Your task to perform on an android device: turn on notifications settings in the gmail app Image 0: 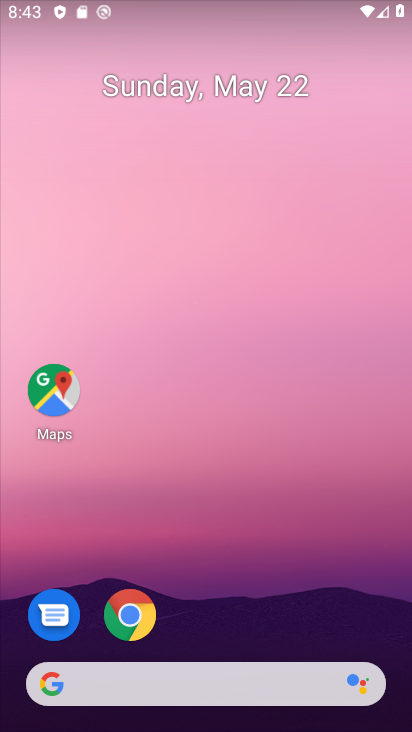
Step 0: drag from (239, 625) to (269, 77)
Your task to perform on an android device: turn on notifications settings in the gmail app Image 1: 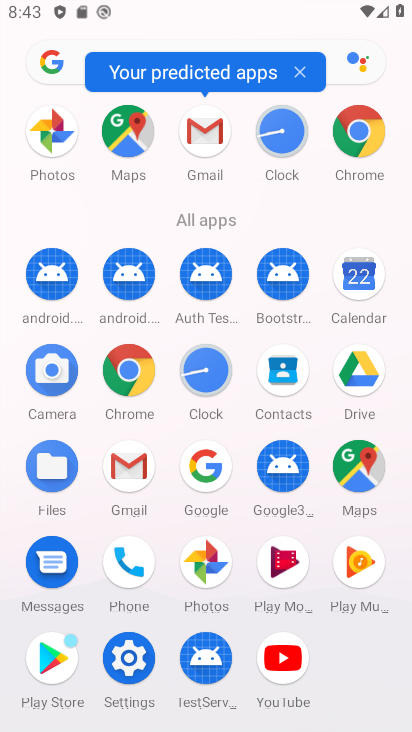
Step 1: click (131, 475)
Your task to perform on an android device: turn on notifications settings in the gmail app Image 2: 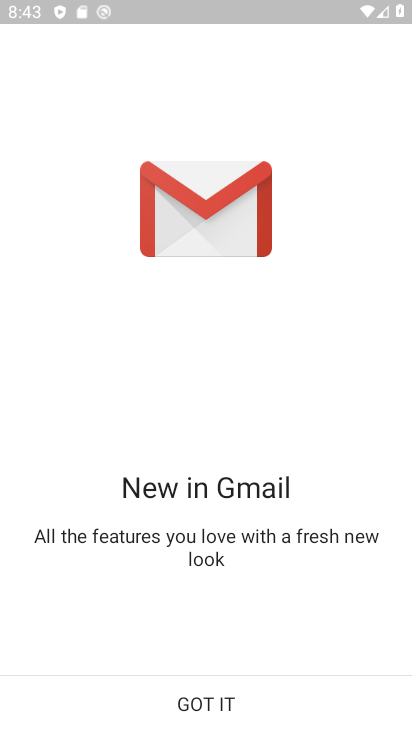
Step 2: click (170, 706)
Your task to perform on an android device: turn on notifications settings in the gmail app Image 3: 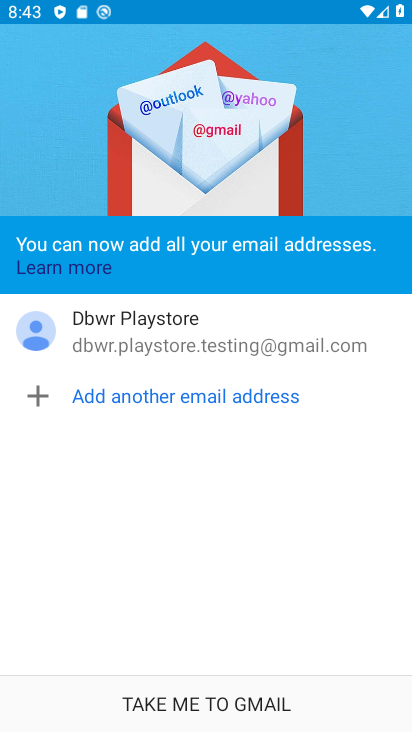
Step 3: click (208, 706)
Your task to perform on an android device: turn on notifications settings in the gmail app Image 4: 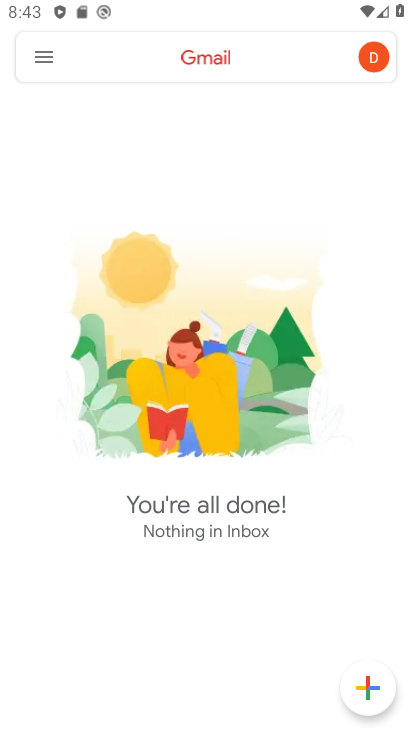
Step 4: click (42, 65)
Your task to perform on an android device: turn on notifications settings in the gmail app Image 5: 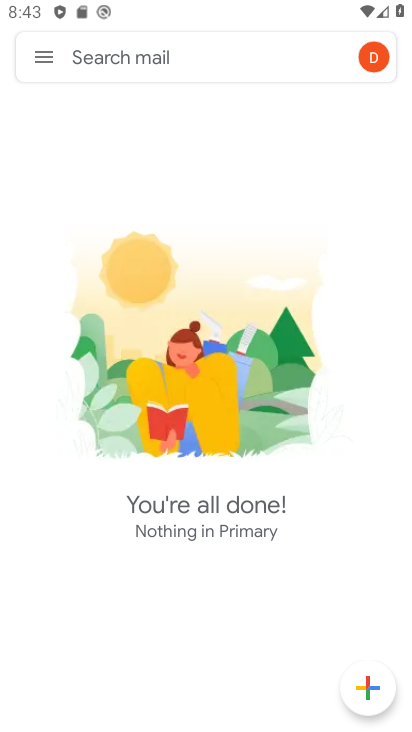
Step 5: click (41, 52)
Your task to perform on an android device: turn on notifications settings in the gmail app Image 6: 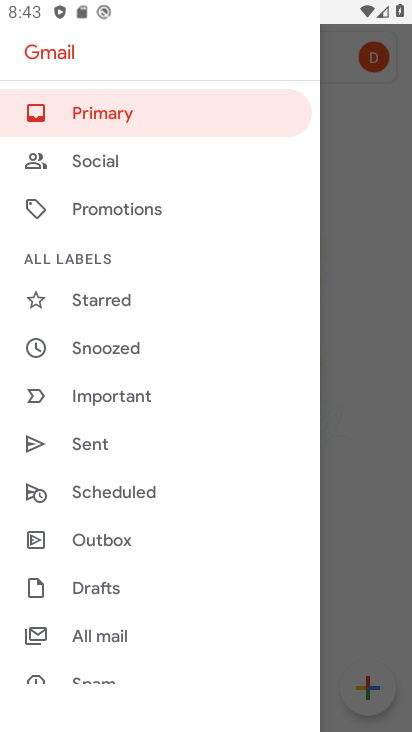
Step 6: drag from (121, 504) to (152, 251)
Your task to perform on an android device: turn on notifications settings in the gmail app Image 7: 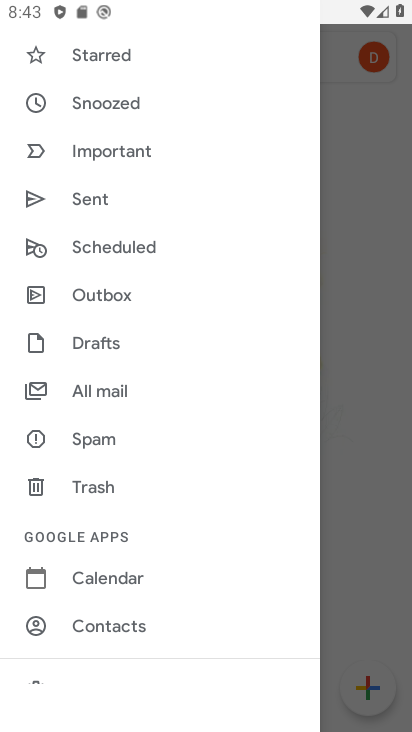
Step 7: drag from (140, 384) to (148, 310)
Your task to perform on an android device: turn on notifications settings in the gmail app Image 8: 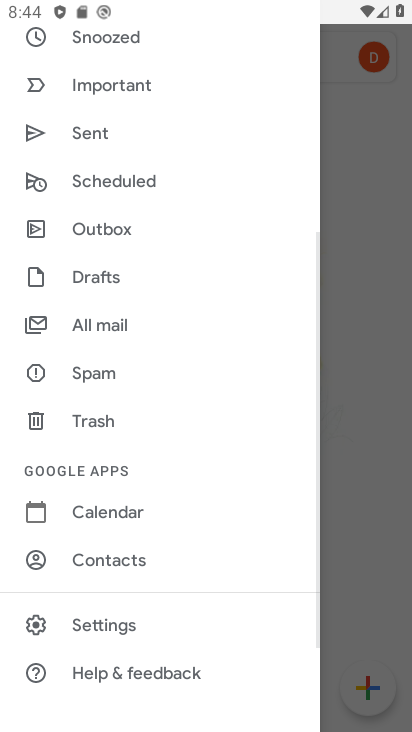
Step 8: click (102, 649)
Your task to perform on an android device: turn on notifications settings in the gmail app Image 9: 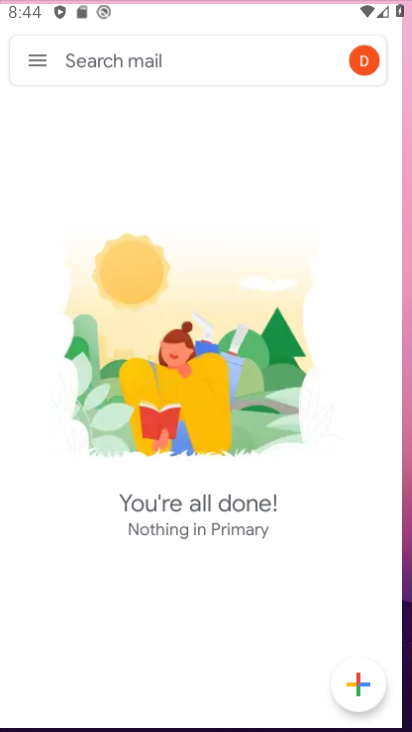
Step 9: click (107, 619)
Your task to perform on an android device: turn on notifications settings in the gmail app Image 10: 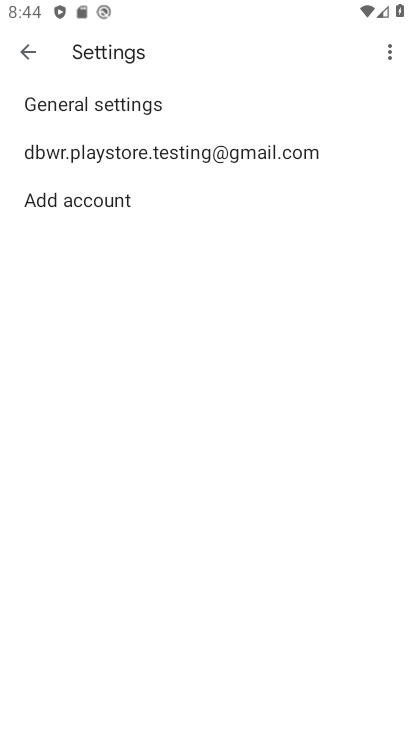
Step 10: click (147, 153)
Your task to perform on an android device: turn on notifications settings in the gmail app Image 11: 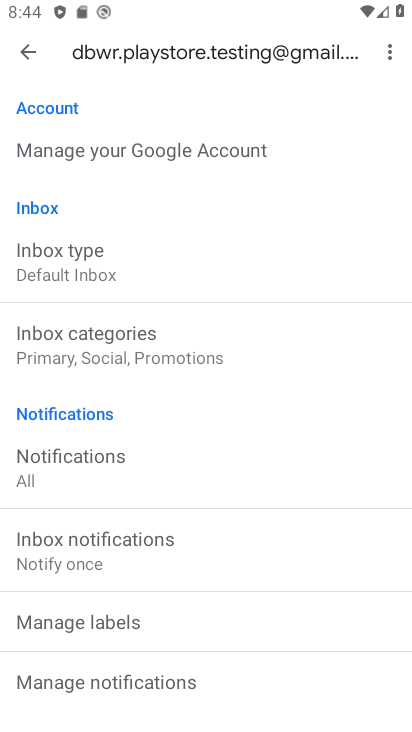
Step 11: click (76, 456)
Your task to perform on an android device: turn on notifications settings in the gmail app Image 12: 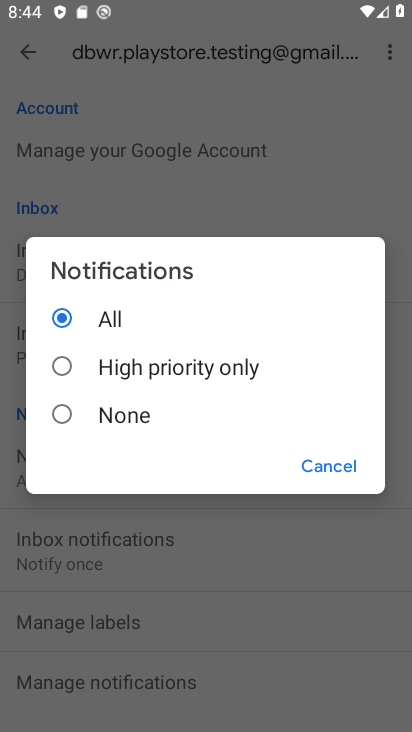
Step 12: task complete